Your task to perform on an android device: open app "Google Play services" (install if not already installed) Image 0: 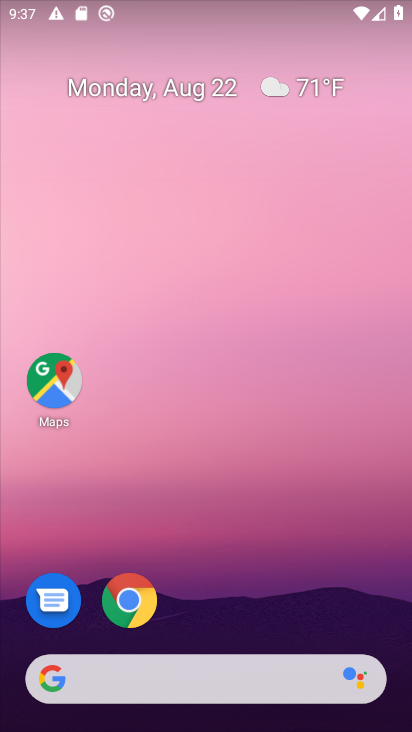
Step 0: drag from (206, 547) to (244, 208)
Your task to perform on an android device: open app "Google Play services" (install if not already installed) Image 1: 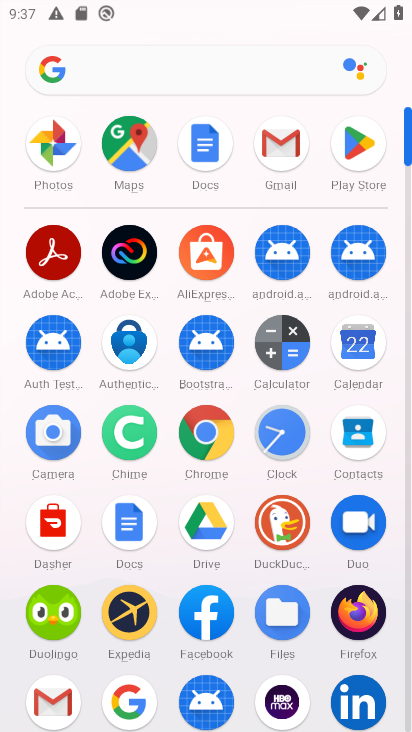
Step 1: click (354, 133)
Your task to perform on an android device: open app "Google Play services" (install if not already installed) Image 2: 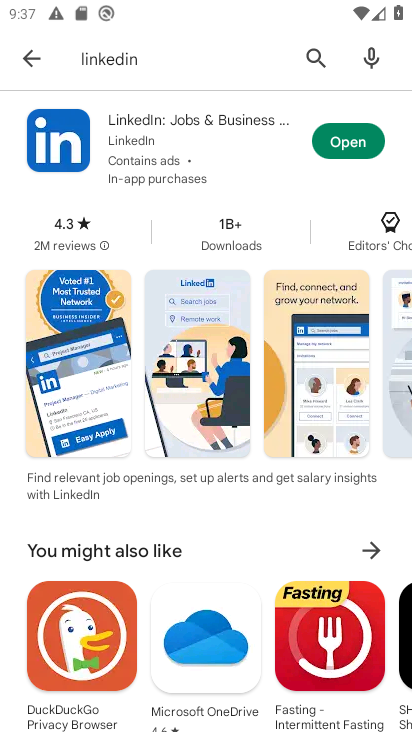
Step 2: click (304, 52)
Your task to perform on an android device: open app "Google Play services" (install if not already installed) Image 3: 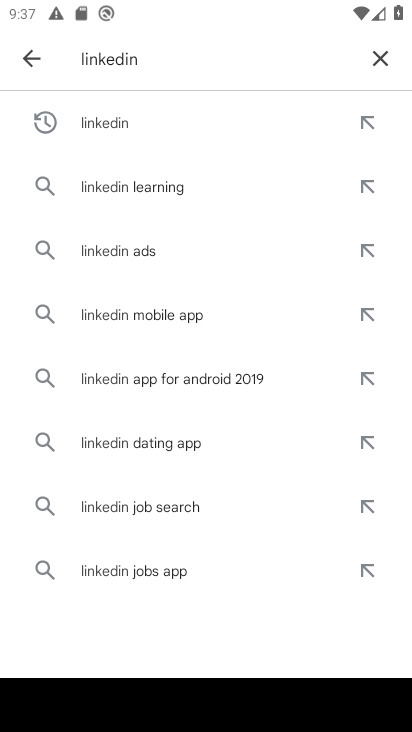
Step 3: click (377, 56)
Your task to perform on an android device: open app "Google Play services" (install if not already installed) Image 4: 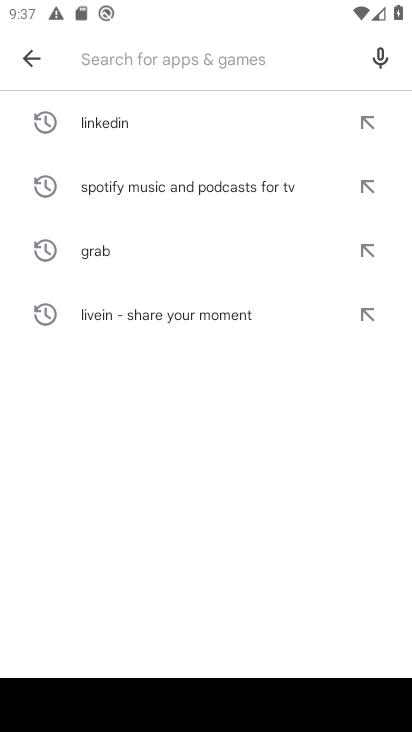
Step 4: type "Google Play services"
Your task to perform on an android device: open app "Google Play services" (install if not already installed) Image 5: 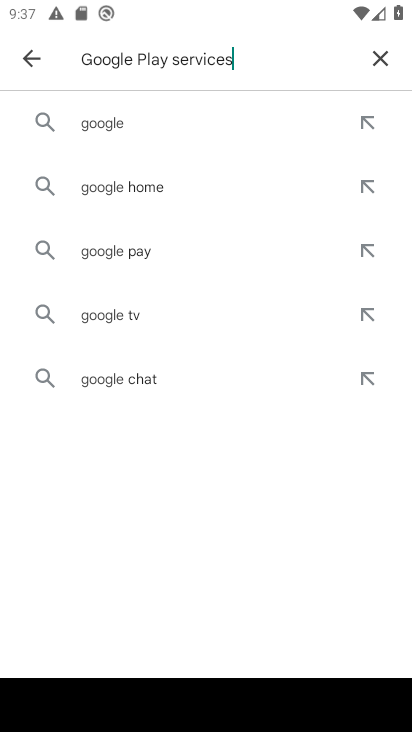
Step 5: type ""
Your task to perform on an android device: open app "Google Play services" (install if not already installed) Image 6: 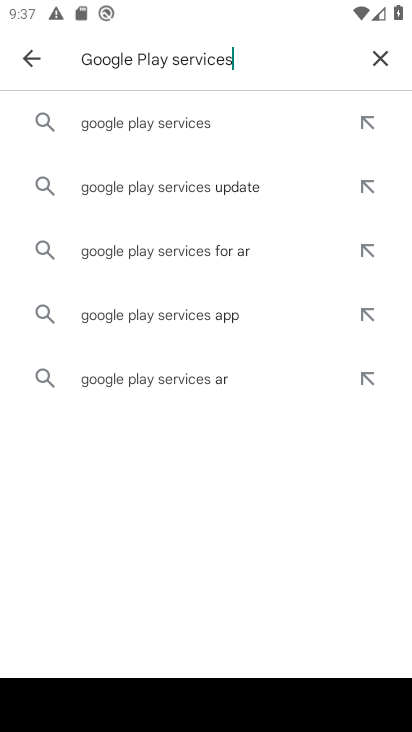
Step 6: click (159, 138)
Your task to perform on an android device: open app "Google Play services" (install if not already installed) Image 7: 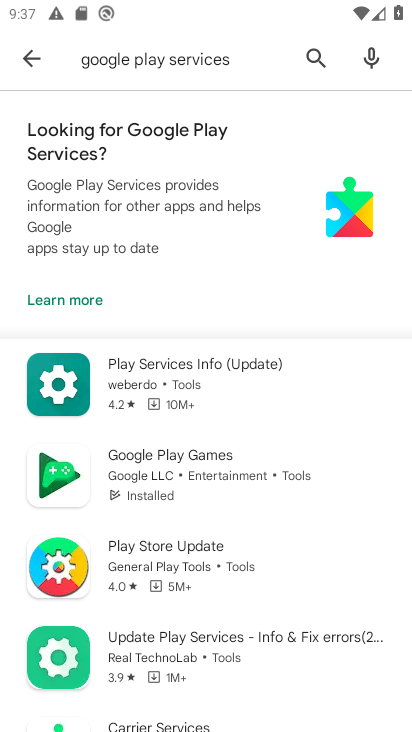
Step 7: click (268, 381)
Your task to perform on an android device: open app "Google Play services" (install if not already installed) Image 8: 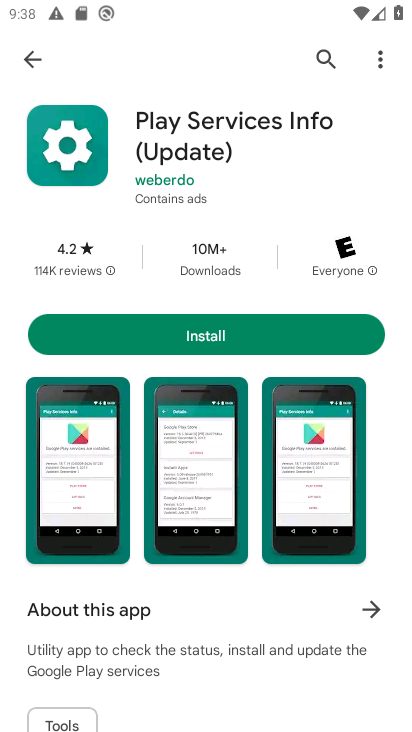
Step 8: click (267, 334)
Your task to perform on an android device: open app "Google Play services" (install if not already installed) Image 9: 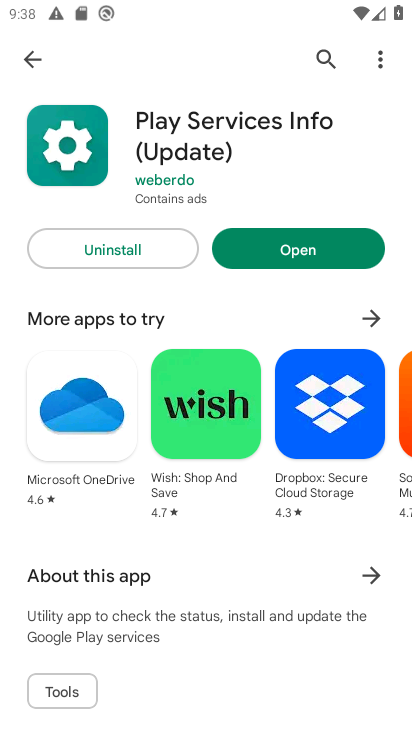
Step 9: click (315, 239)
Your task to perform on an android device: open app "Google Play services" (install if not already installed) Image 10: 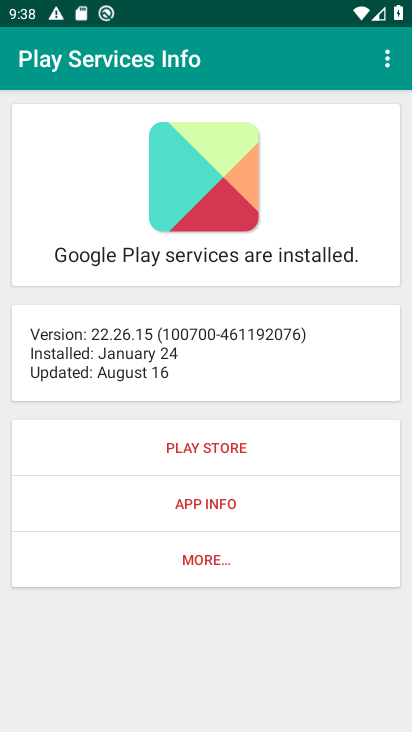
Step 10: task complete